Your task to perform on an android device: Check the weather Image 0: 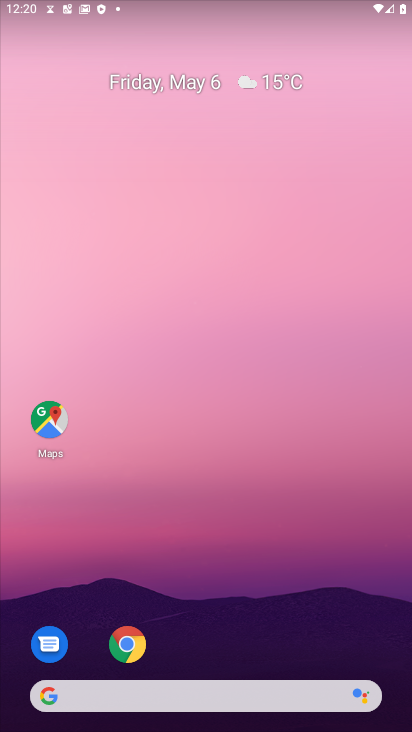
Step 0: drag from (259, 580) to (261, 14)
Your task to perform on an android device: Check the weather Image 1: 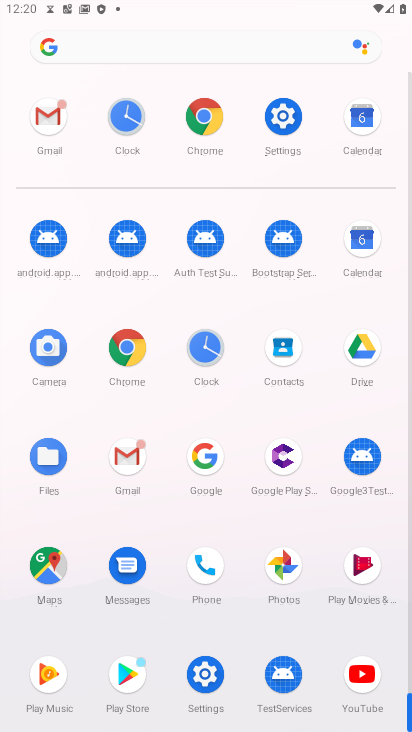
Step 1: drag from (17, 403) to (15, 255)
Your task to perform on an android device: Check the weather Image 2: 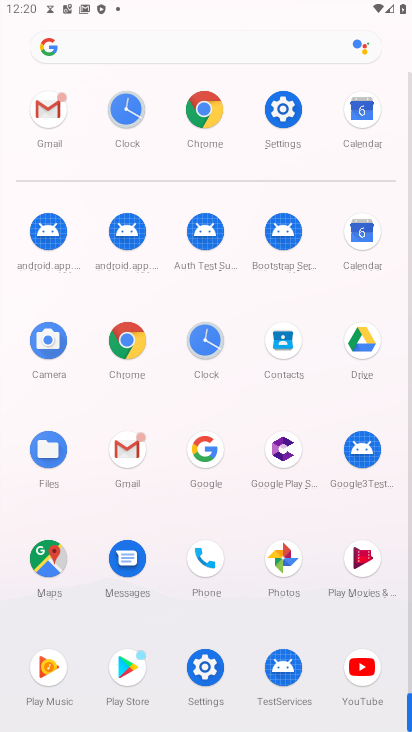
Step 2: drag from (4, 615) to (5, 235)
Your task to perform on an android device: Check the weather Image 3: 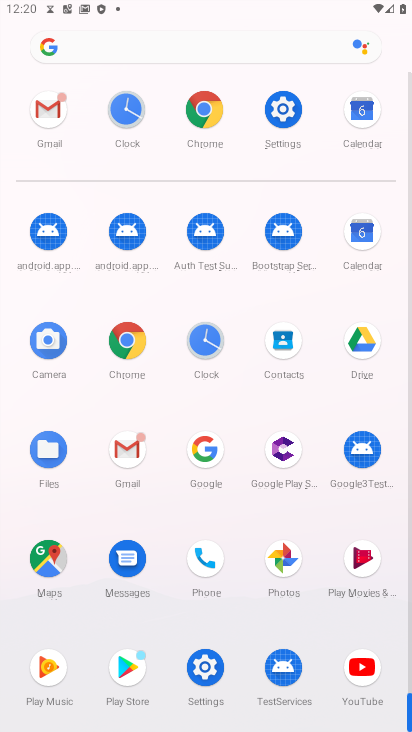
Step 3: drag from (22, 147) to (8, 497)
Your task to perform on an android device: Check the weather Image 4: 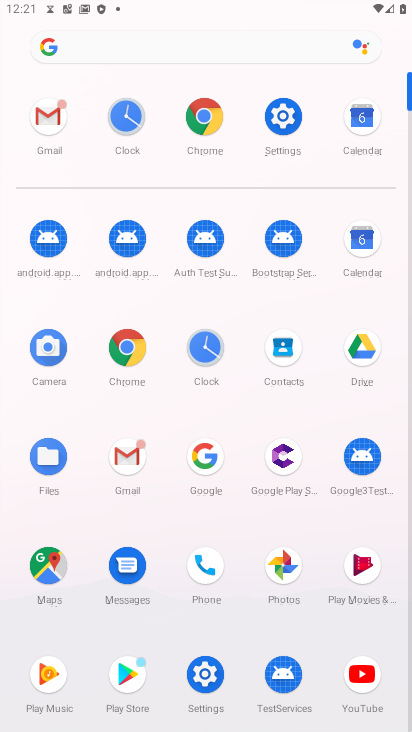
Step 4: click (204, 669)
Your task to perform on an android device: Check the weather Image 5: 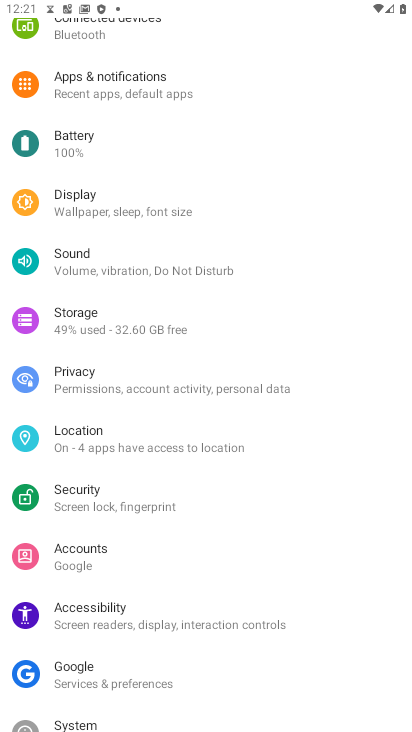
Step 5: drag from (272, 136) to (293, 635)
Your task to perform on an android device: Check the weather Image 6: 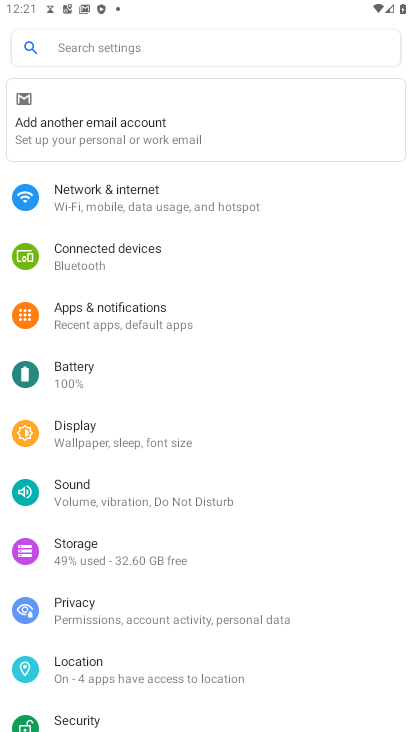
Step 6: drag from (297, 587) to (330, 223)
Your task to perform on an android device: Check the weather Image 7: 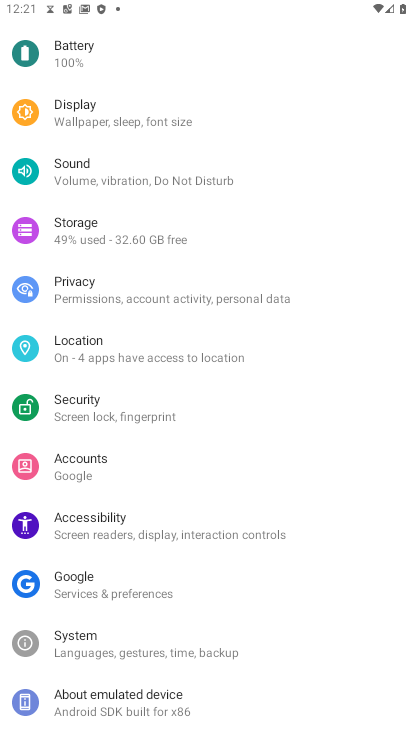
Step 7: drag from (276, 540) to (305, 128)
Your task to perform on an android device: Check the weather Image 8: 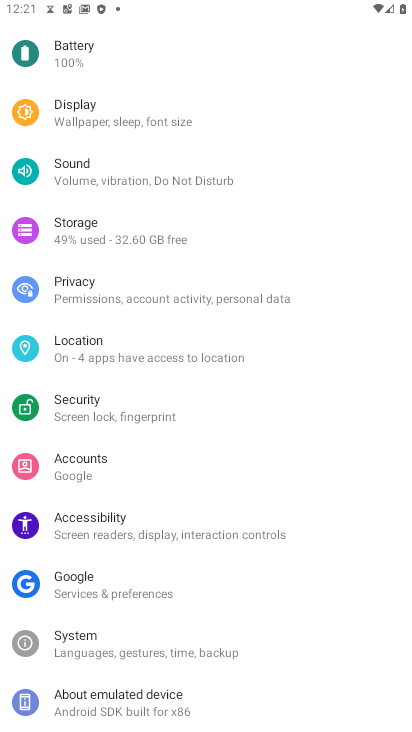
Step 8: drag from (255, 559) to (303, 172)
Your task to perform on an android device: Check the weather Image 9: 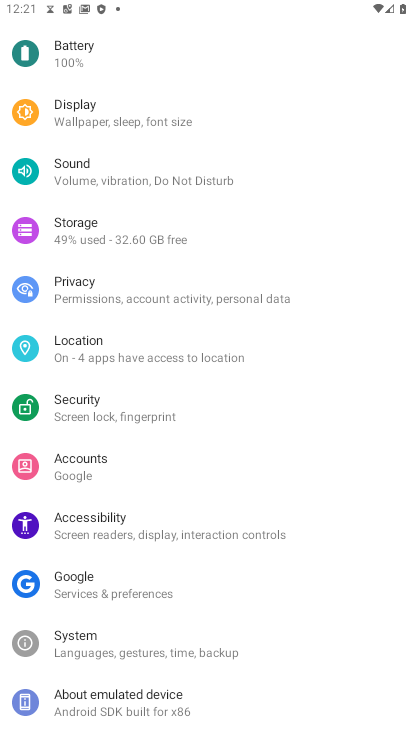
Step 9: press back button
Your task to perform on an android device: Check the weather Image 10: 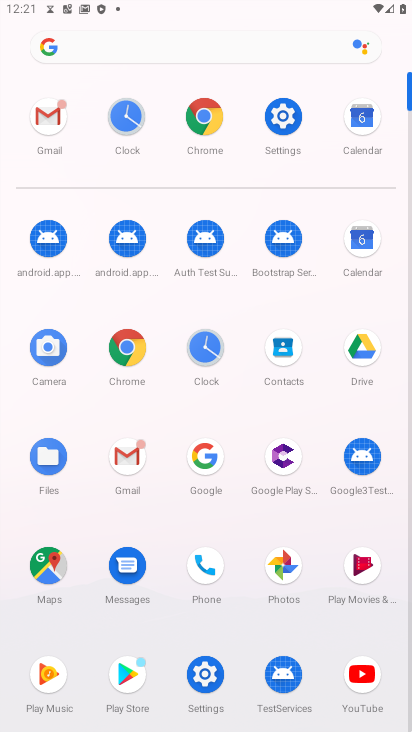
Step 10: press back button
Your task to perform on an android device: Check the weather Image 11: 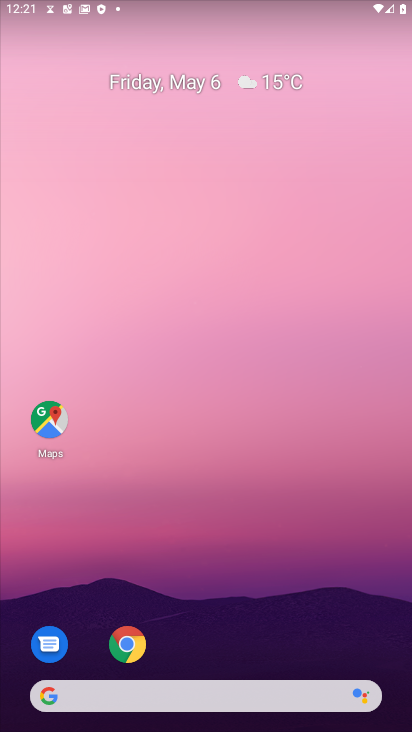
Step 11: drag from (313, 565) to (327, 19)
Your task to perform on an android device: Check the weather Image 12: 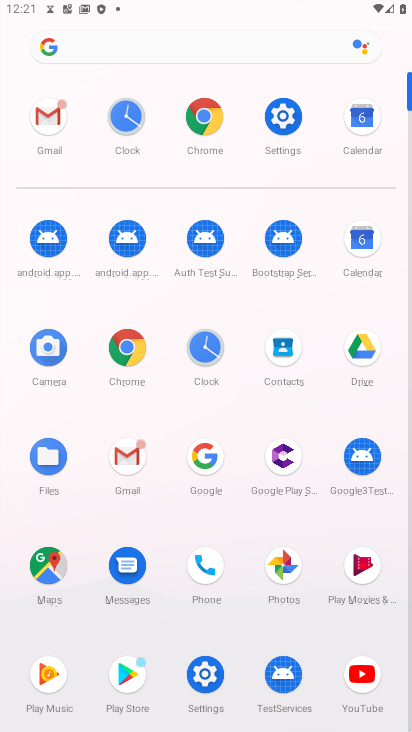
Step 12: click (200, 113)
Your task to perform on an android device: Check the weather Image 13: 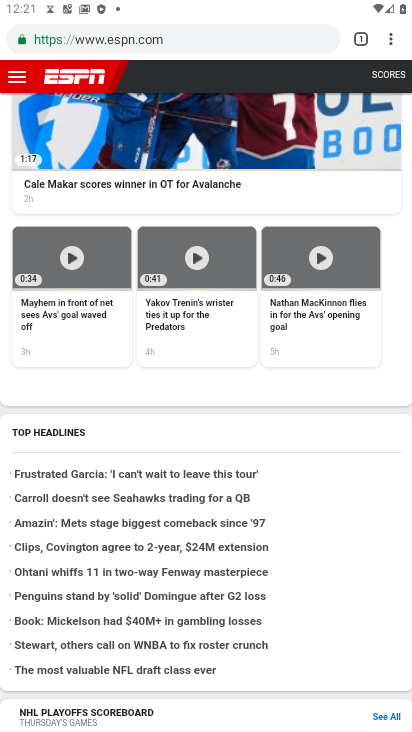
Step 13: click (175, 33)
Your task to perform on an android device: Check the weather Image 14: 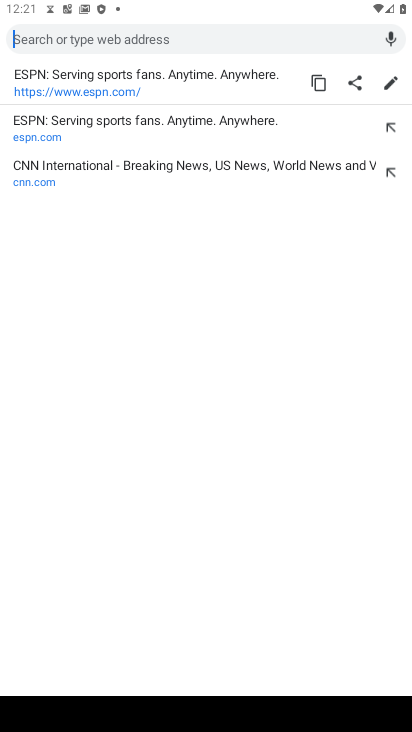
Step 14: click (166, 34)
Your task to perform on an android device: Check the weather Image 15: 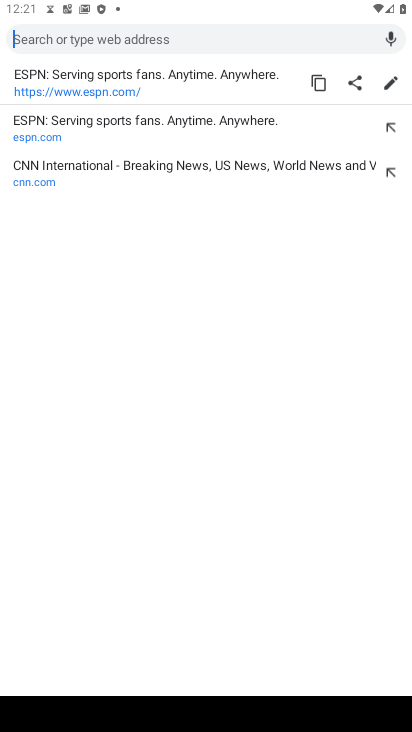
Step 15: type "Check the weather"
Your task to perform on an android device: Check the weather Image 16: 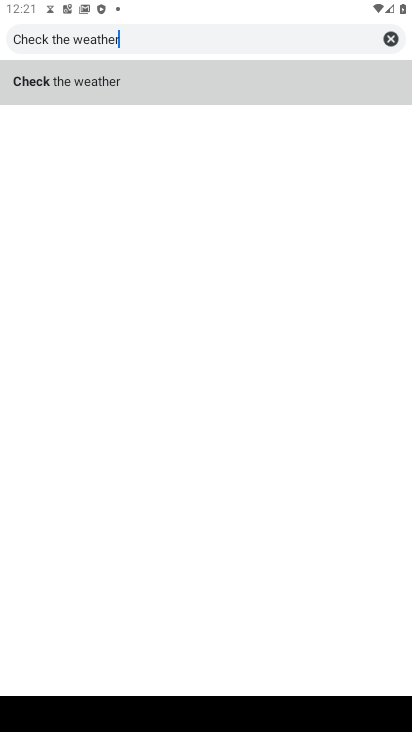
Step 16: type ""
Your task to perform on an android device: Check the weather Image 17: 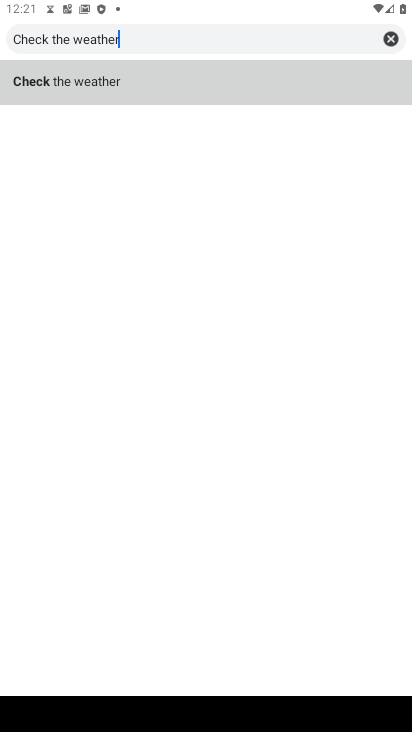
Step 17: click (130, 74)
Your task to perform on an android device: Check the weather Image 18: 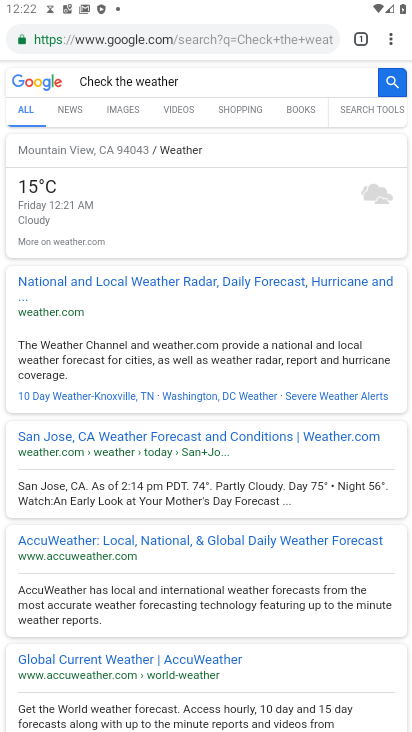
Step 18: task complete